Your task to perform on an android device: change timer sound Image 0: 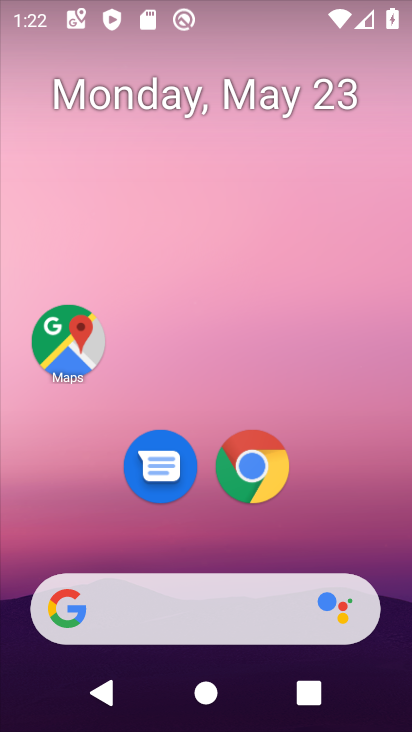
Step 0: drag from (347, 546) to (294, 167)
Your task to perform on an android device: change timer sound Image 1: 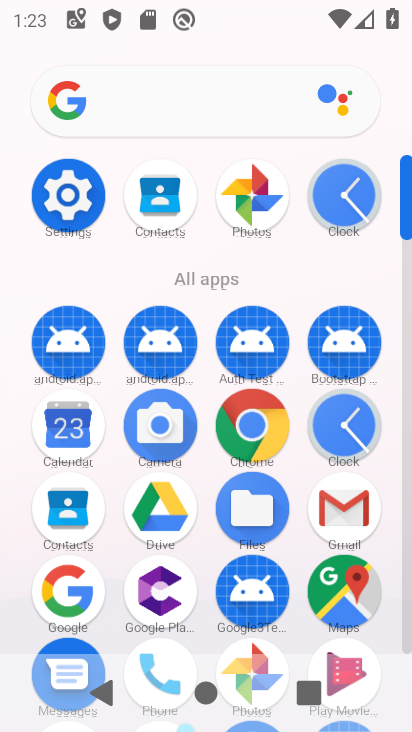
Step 1: click (343, 198)
Your task to perform on an android device: change timer sound Image 2: 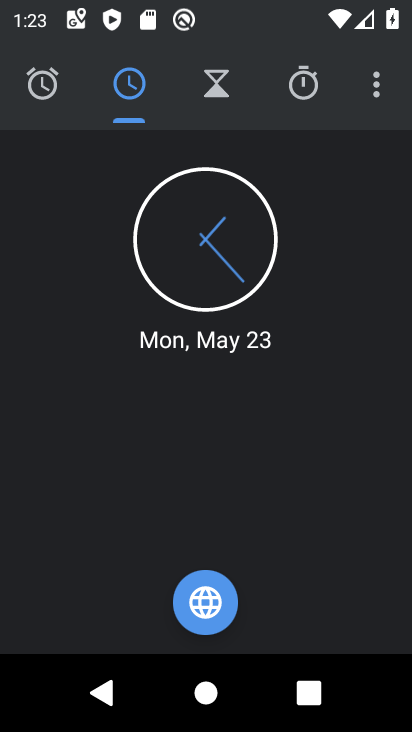
Step 2: click (377, 86)
Your task to perform on an android device: change timer sound Image 3: 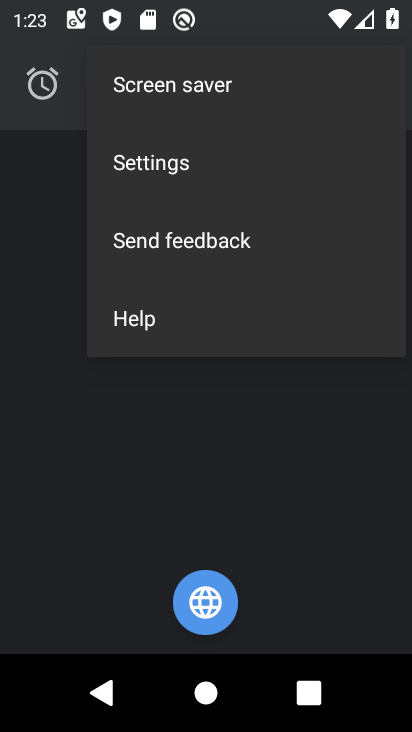
Step 3: click (153, 169)
Your task to perform on an android device: change timer sound Image 4: 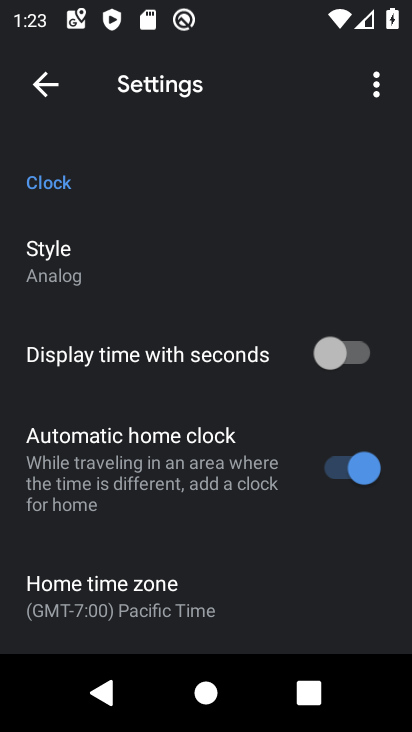
Step 4: drag from (140, 537) to (172, 458)
Your task to perform on an android device: change timer sound Image 5: 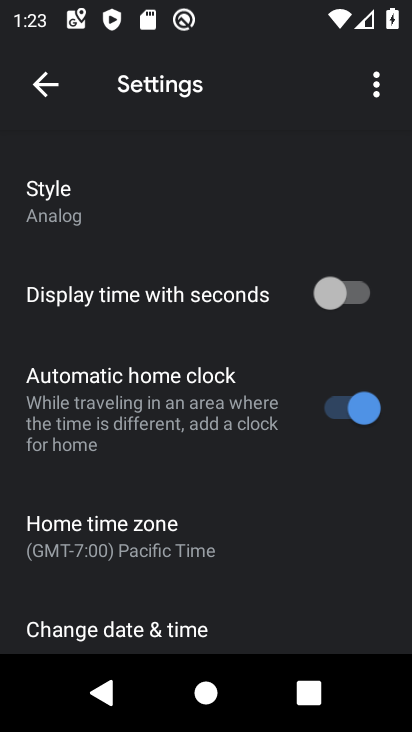
Step 5: drag from (114, 491) to (157, 424)
Your task to perform on an android device: change timer sound Image 6: 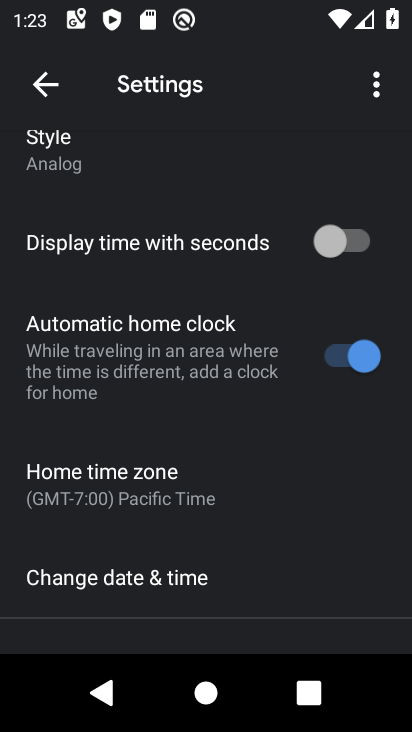
Step 6: drag from (87, 542) to (169, 438)
Your task to perform on an android device: change timer sound Image 7: 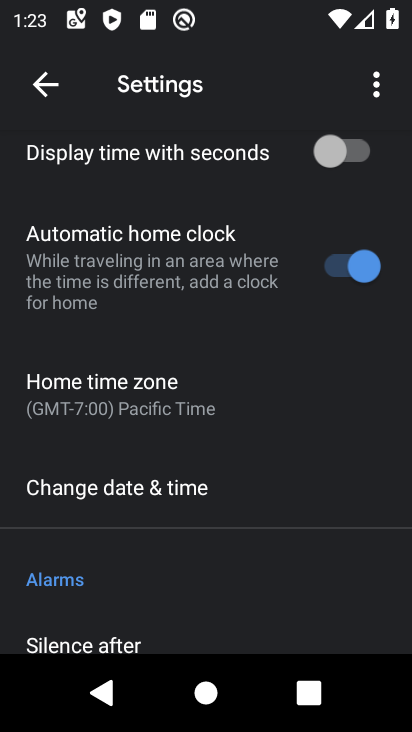
Step 7: drag from (75, 549) to (134, 466)
Your task to perform on an android device: change timer sound Image 8: 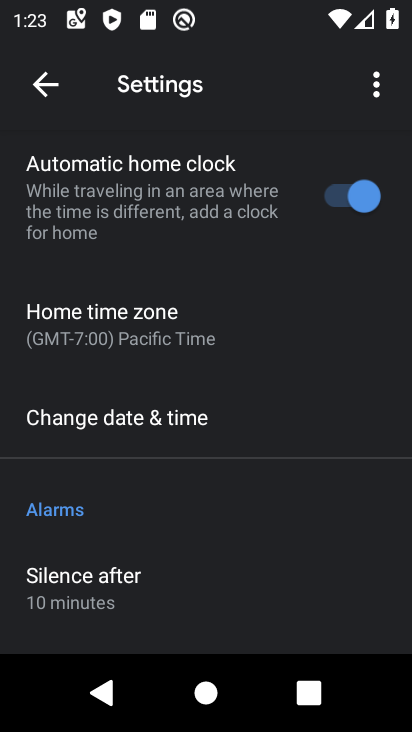
Step 8: drag from (55, 543) to (137, 445)
Your task to perform on an android device: change timer sound Image 9: 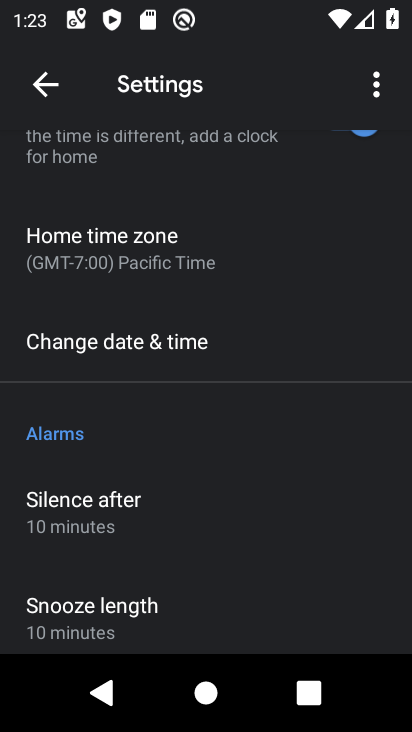
Step 9: drag from (51, 567) to (80, 479)
Your task to perform on an android device: change timer sound Image 10: 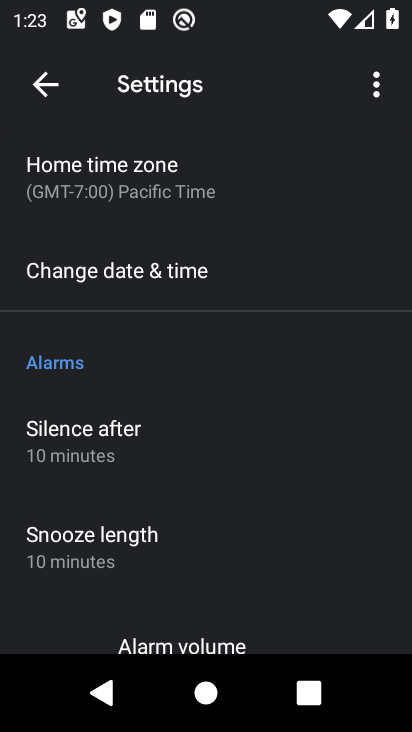
Step 10: drag from (60, 590) to (108, 506)
Your task to perform on an android device: change timer sound Image 11: 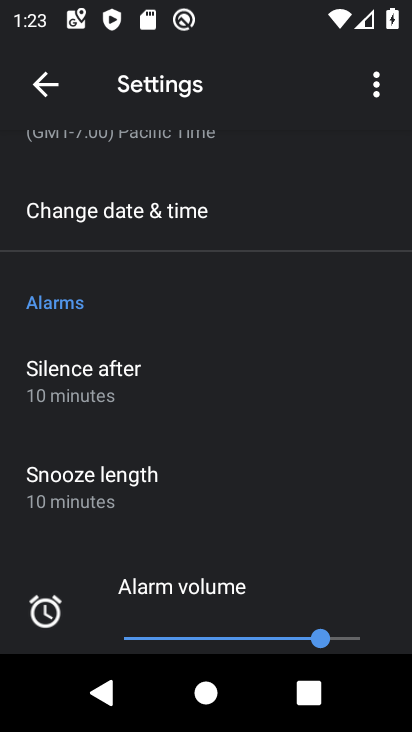
Step 11: drag from (65, 559) to (125, 465)
Your task to perform on an android device: change timer sound Image 12: 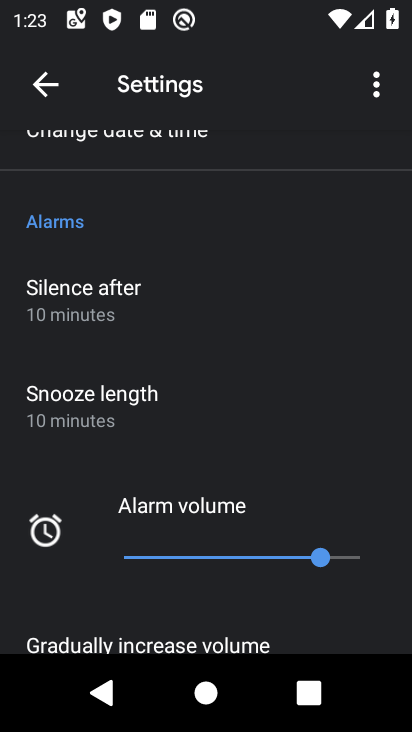
Step 12: drag from (68, 595) to (135, 481)
Your task to perform on an android device: change timer sound Image 13: 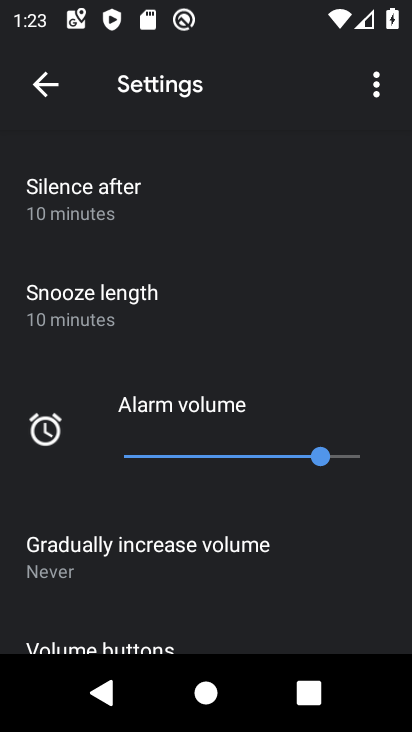
Step 13: drag from (58, 606) to (118, 517)
Your task to perform on an android device: change timer sound Image 14: 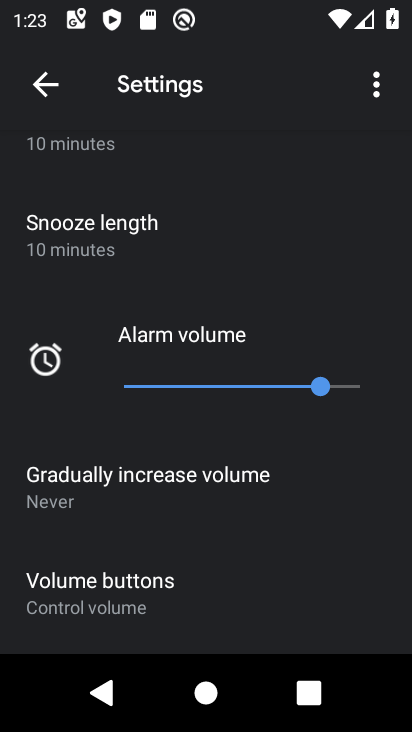
Step 14: drag from (118, 521) to (210, 400)
Your task to perform on an android device: change timer sound Image 15: 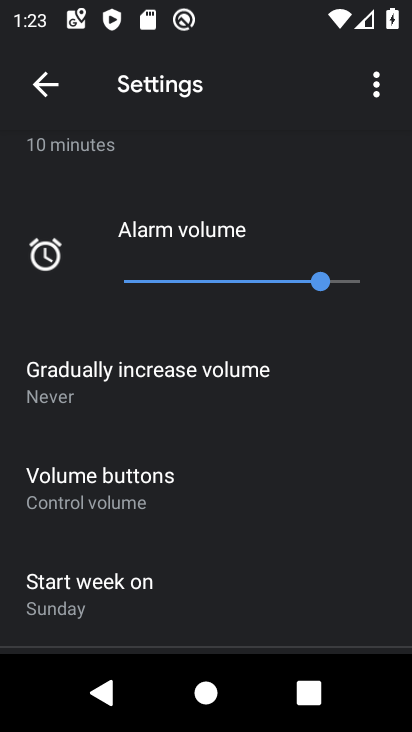
Step 15: drag from (111, 546) to (188, 451)
Your task to perform on an android device: change timer sound Image 16: 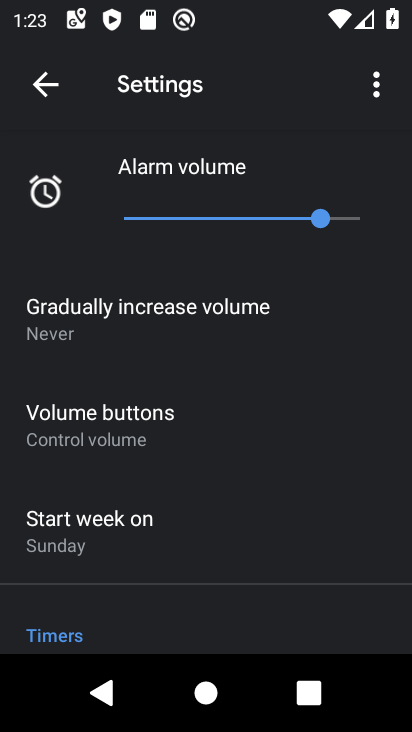
Step 16: drag from (77, 597) to (181, 473)
Your task to perform on an android device: change timer sound Image 17: 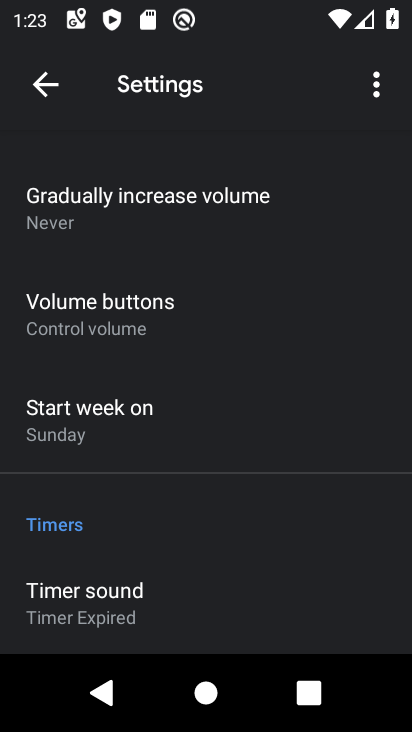
Step 17: drag from (108, 516) to (201, 417)
Your task to perform on an android device: change timer sound Image 18: 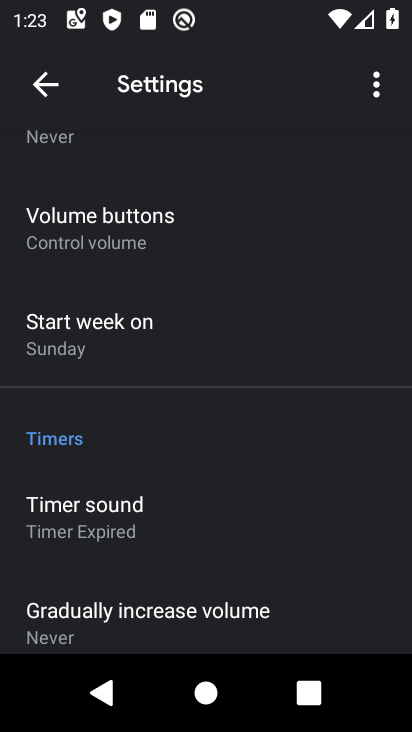
Step 18: click (116, 507)
Your task to perform on an android device: change timer sound Image 19: 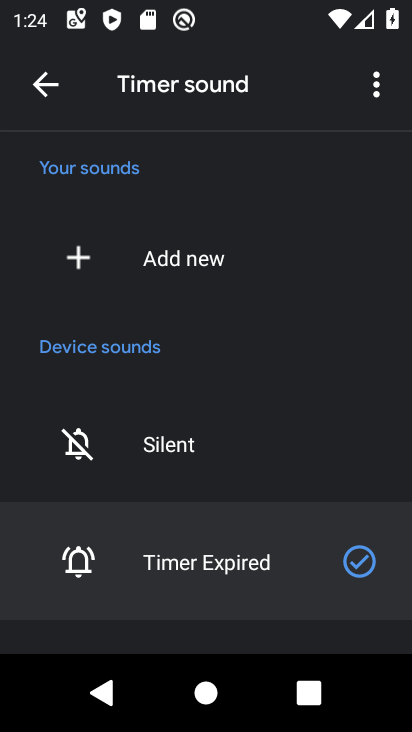
Step 19: drag from (216, 526) to (272, 403)
Your task to perform on an android device: change timer sound Image 20: 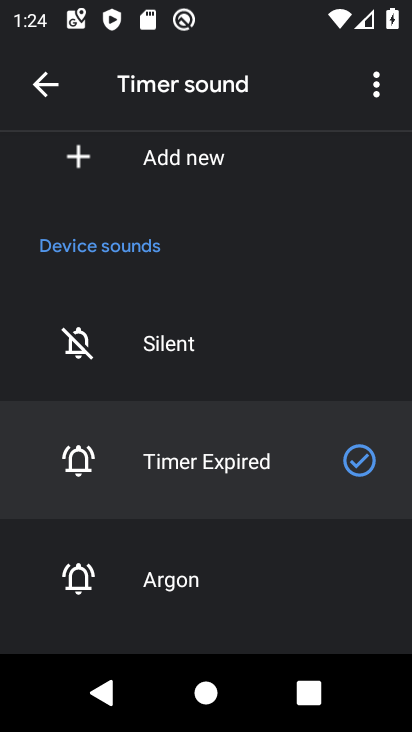
Step 20: drag from (149, 574) to (209, 405)
Your task to perform on an android device: change timer sound Image 21: 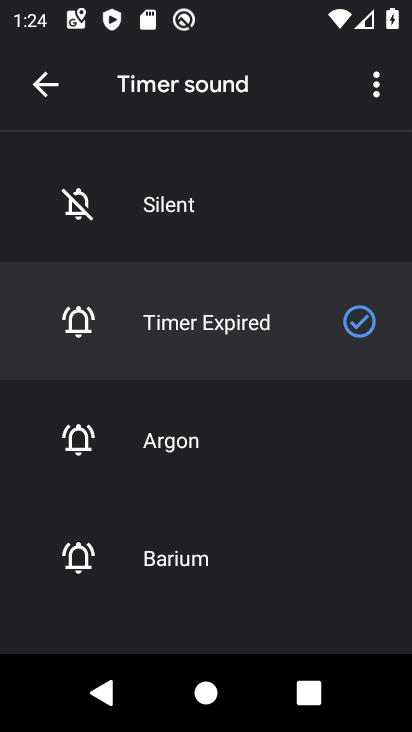
Step 21: drag from (163, 536) to (239, 391)
Your task to perform on an android device: change timer sound Image 22: 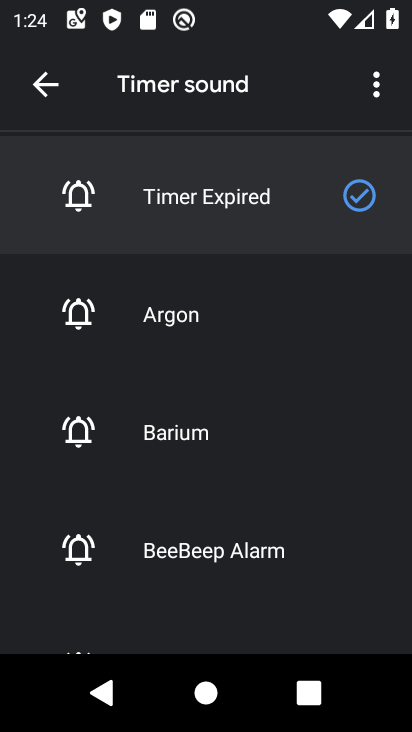
Step 22: drag from (181, 539) to (240, 410)
Your task to perform on an android device: change timer sound Image 23: 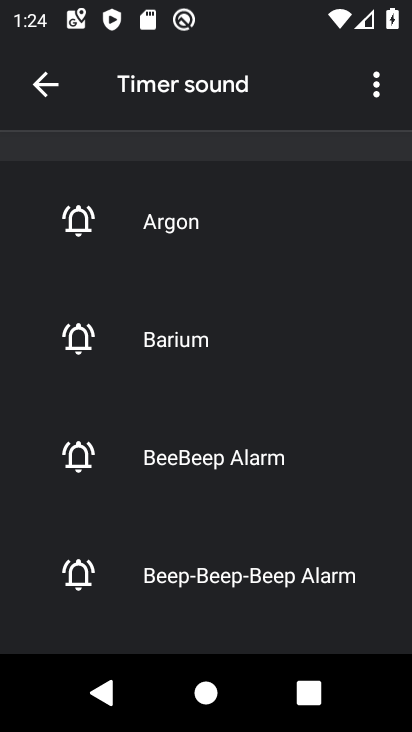
Step 23: click (177, 573)
Your task to perform on an android device: change timer sound Image 24: 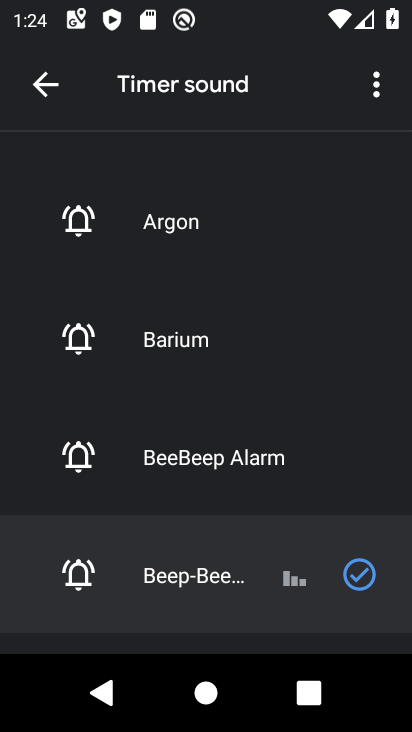
Step 24: task complete